Your task to perform on an android device: turn off smart reply in the gmail app Image 0: 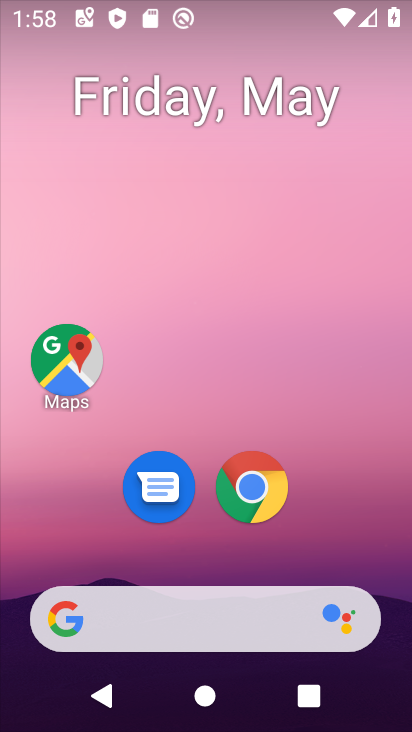
Step 0: drag from (349, 564) to (327, 56)
Your task to perform on an android device: turn off smart reply in the gmail app Image 1: 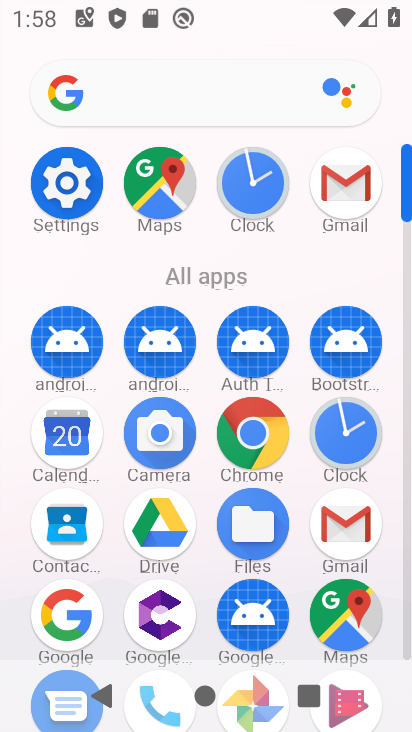
Step 1: click (337, 189)
Your task to perform on an android device: turn off smart reply in the gmail app Image 2: 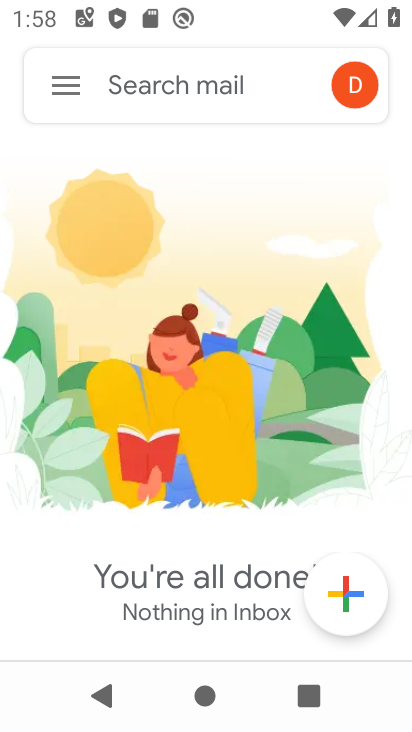
Step 2: click (52, 87)
Your task to perform on an android device: turn off smart reply in the gmail app Image 3: 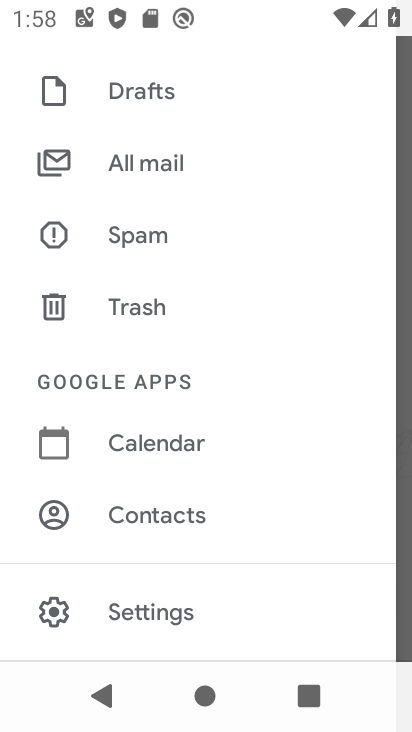
Step 3: click (186, 606)
Your task to perform on an android device: turn off smart reply in the gmail app Image 4: 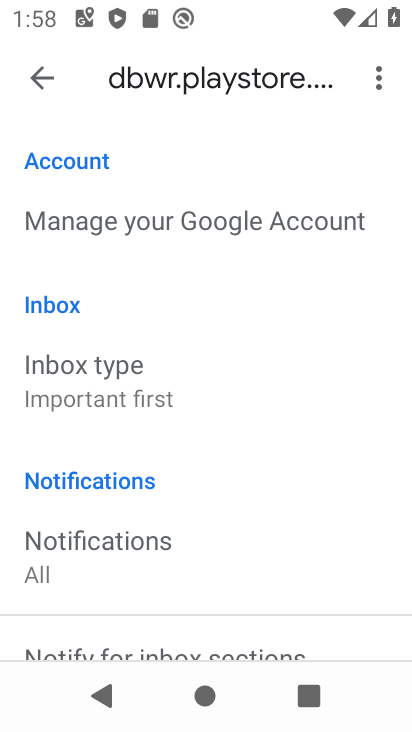
Step 4: drag from (235, 521) to (241, 187)
Your task to perform on an android device: turn off smart reply in the gmail app Image 5: 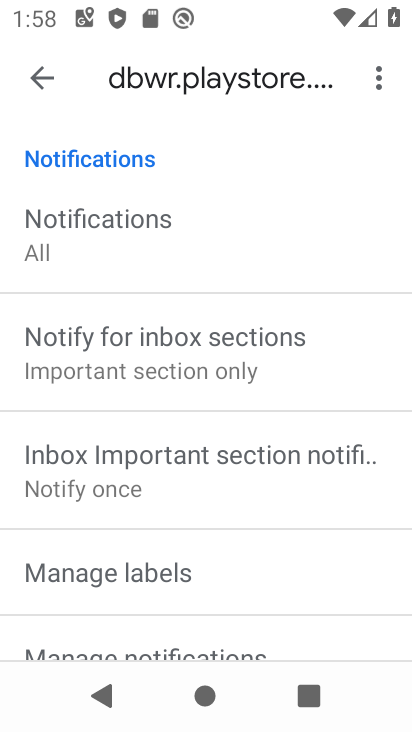
Step 5: drag from (192, 518) to (207, 106)
Your task to perform on an android device: turn off smart reply in the gmail app Image 6: 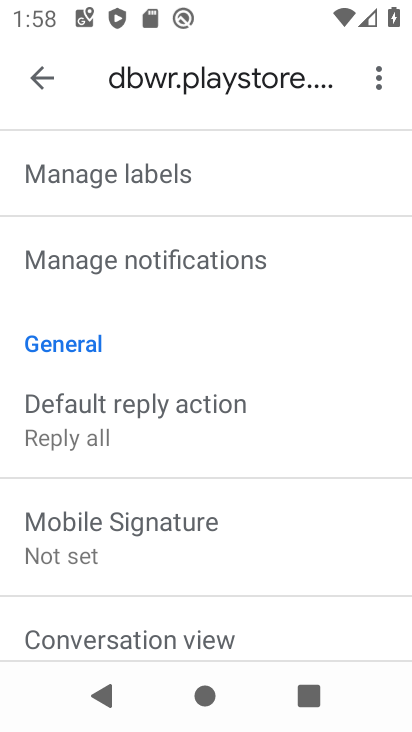
Step 6: drag from (175, 566) to (201, 214)
Your task to perform on an android device: turn off smart reply in the gmail app Image 7: 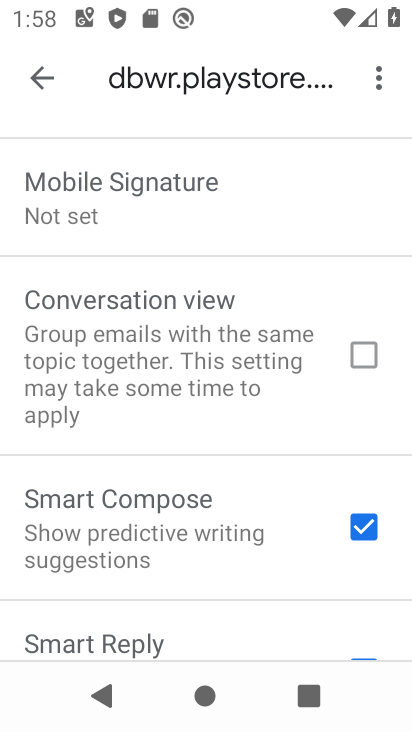
Step 7: drag from (176, 495) to (184, 180)
Your task to perform on an android device: turn off smart reply in the gmail app Image 8: 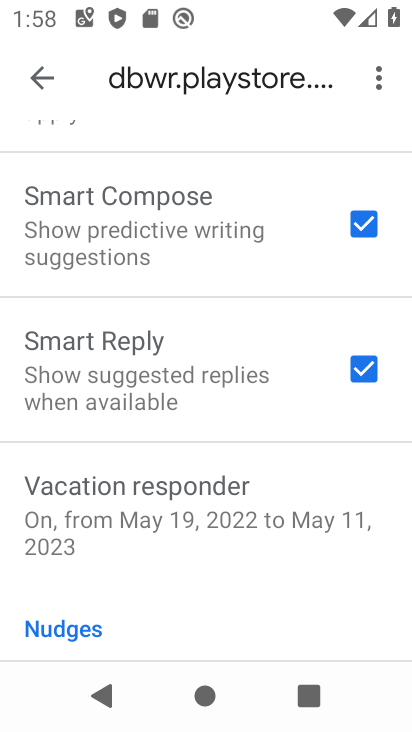
Step 8: click (373, 369)
Your task to perform on an android device: turn off smart reply in the gmail app Image 9: 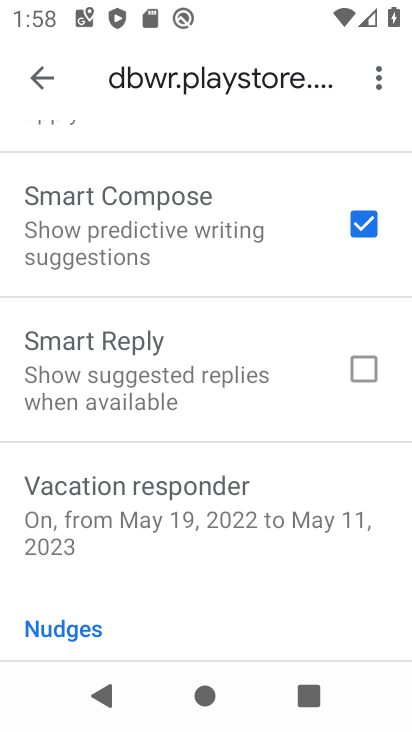
Step 9: task complete